Your task to perform on an android device: open chrome and create a bookmark for the current page Image 0: 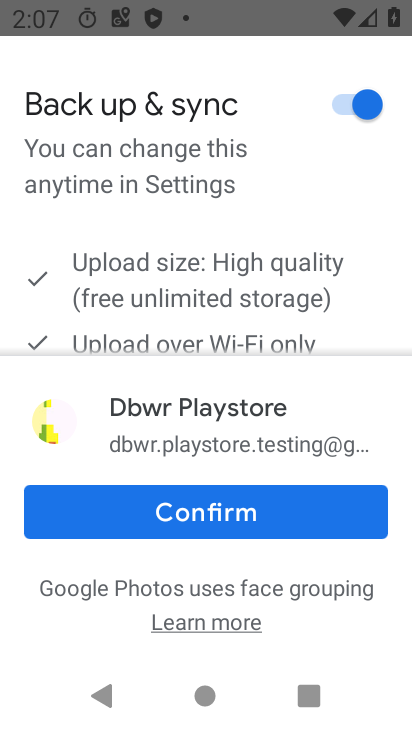
Step 0: press home button
Your task to perform on an android device: open chrome and create a bookmark for the current page Image 1: 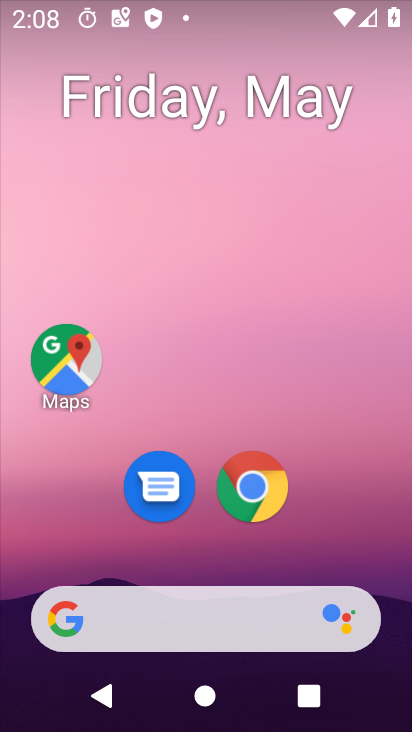
Step 1: click (251, 486)
Your task to perform on an android device: open chrome and create a bookmark for the current page Image 2: 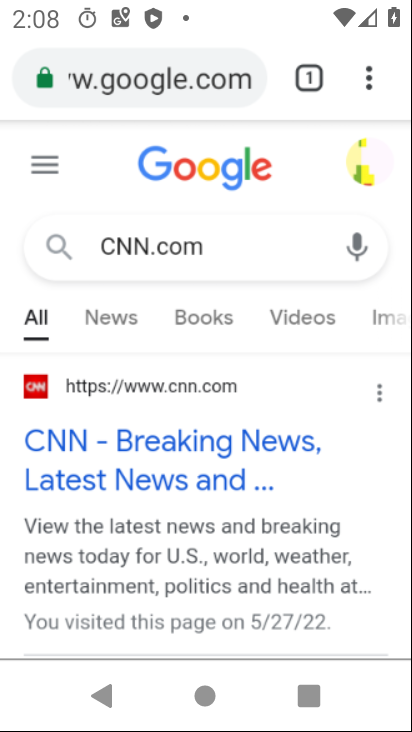
Step 2: click (368, 74)
Your task to perform on an android device: open chrome and create a bookmark for the current page Image 3: 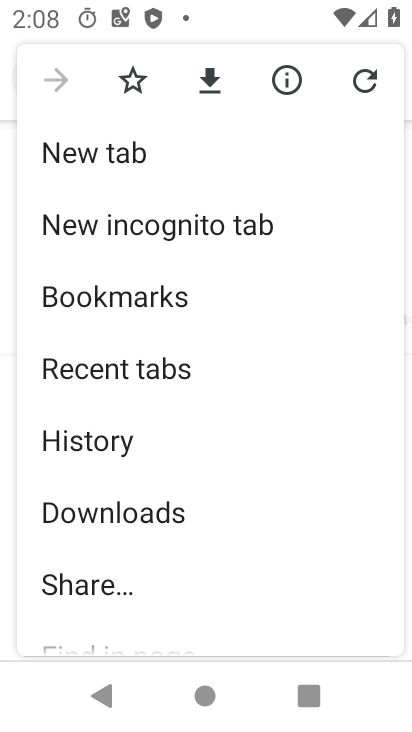
Step 3: drag from (276, 606) to (259, 241)
Your task to perform on an android device: open chrome and create a bookmark for the current page Image 4: 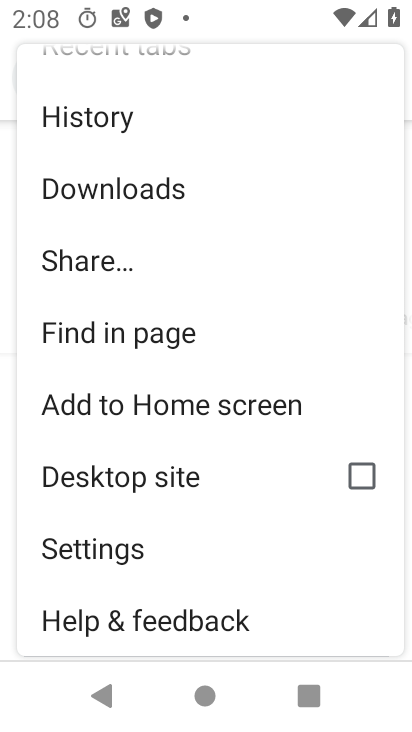
Step 4: click (85, 550)
Your task to perform on an android device: open chrome and create a bookmark for the current page Image 5: 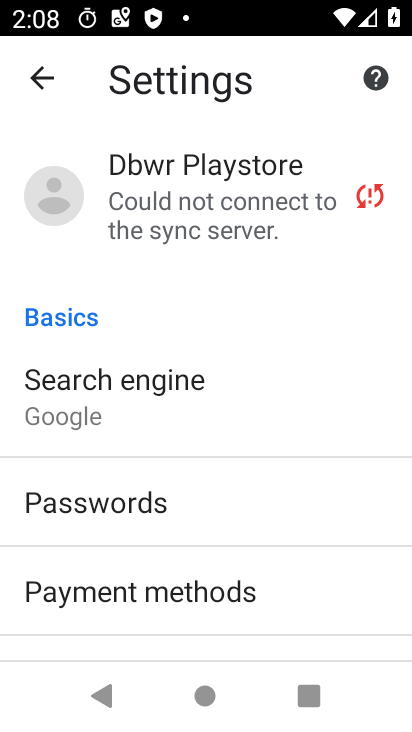
Step 5: click (41, 83)
Your task to perform on an android device: open chrome and create a bookmark for the current page Image 6: 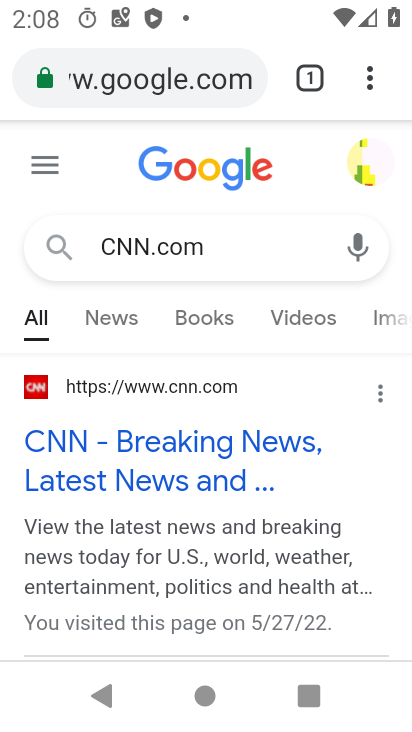
Step 6: click (369, 78)
Your task to perform on an android device: open chrome and create a bookmark for the current page Image 7: 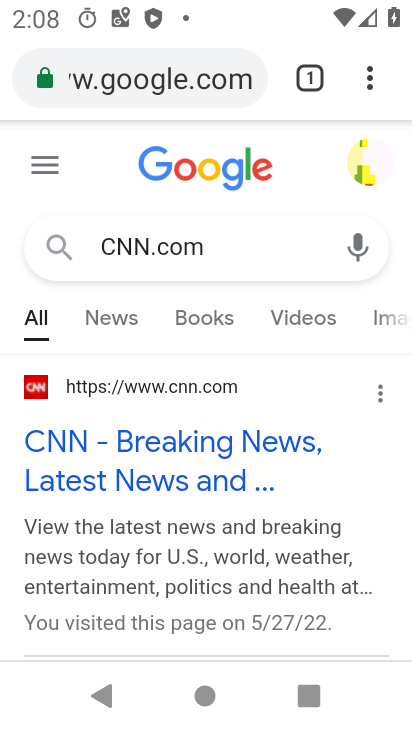
Step 7: click (367, 76)
Your task to perform on an android device: open chrome and create a bookmark for the current page Image 8: 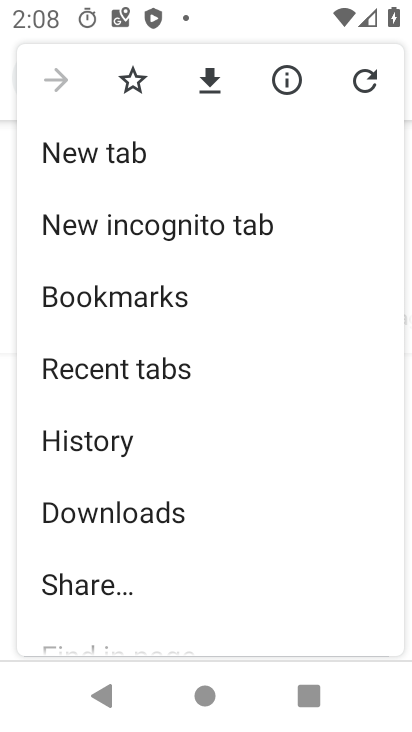
Step 8: click (135, 80)
Your task to perform on an android device: open chrome and create a bookmark for the current page Image 9: 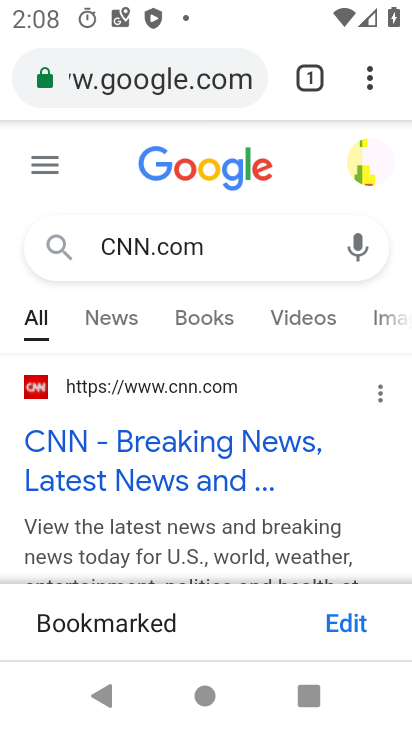
Step 9: task complete